Your task to perform on an android device: When is my next appointment? Image 0: 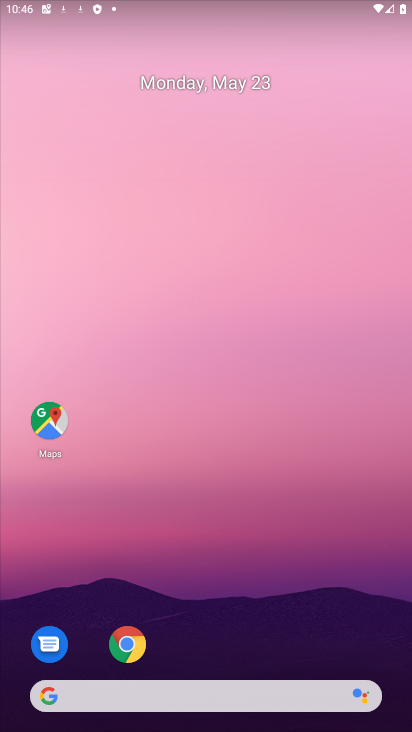
Step 0: drag from (309, 719) to (210, 63)
Your task to perform on an android device: When is my next appointment? Image 1: 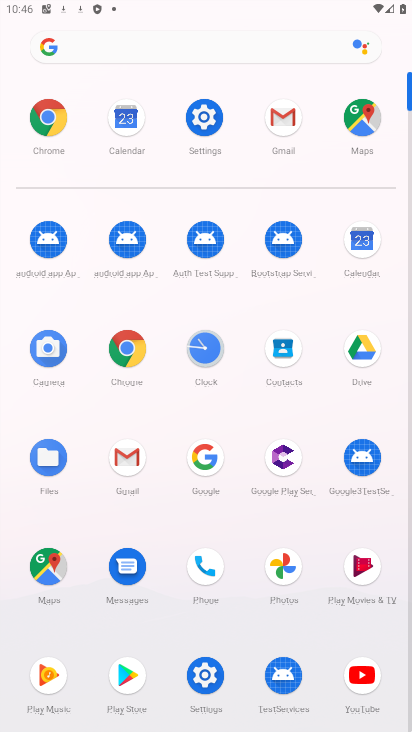
Step 1: click (364, 266)
Your task to perform on an android device: When is my next appointment? Image 2: 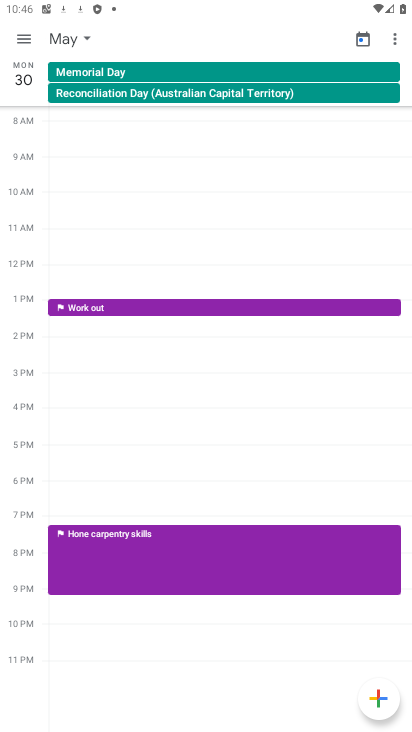
Step 2: click (33, 31)
Your task to perform on an android device: When is my next appointment? Image 3: 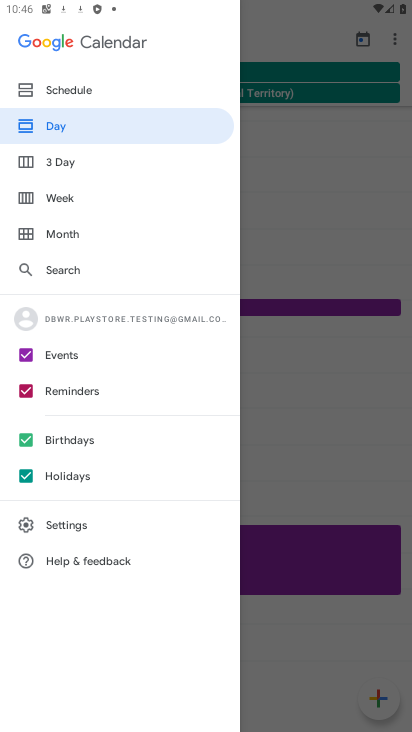
Step 3: click (68, 89)
Your task to perform on an android device: When is my next appointment? Image 4: 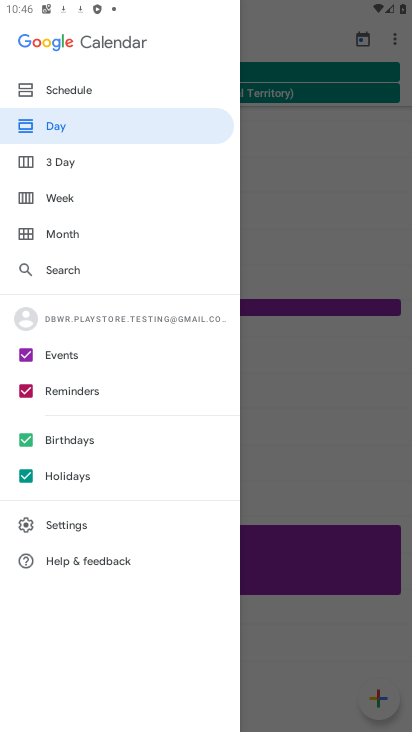
Step 4: click (83, 88)
Your task to perform on an android device: When is my next appointment? Image 5: 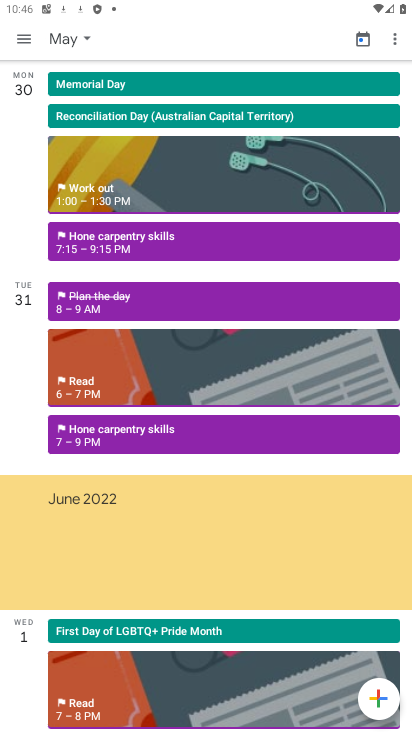
Step 5: task complete